Your task to perform on an android device: turn on bluetooth scan Image 0: 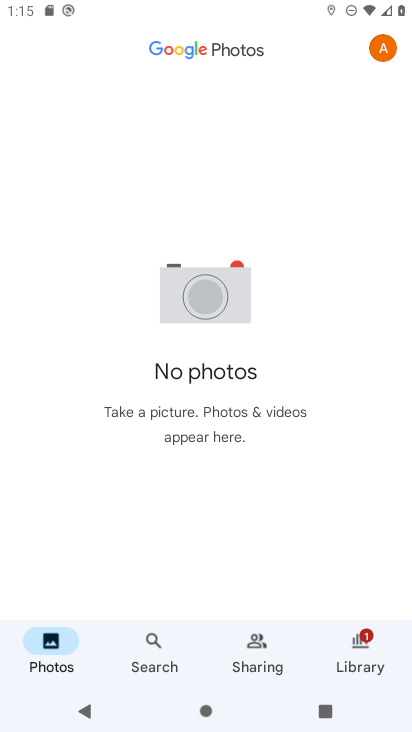
Step 0: press home button
Your task to perform on an android device: turn on bluetooth scan Image 1: 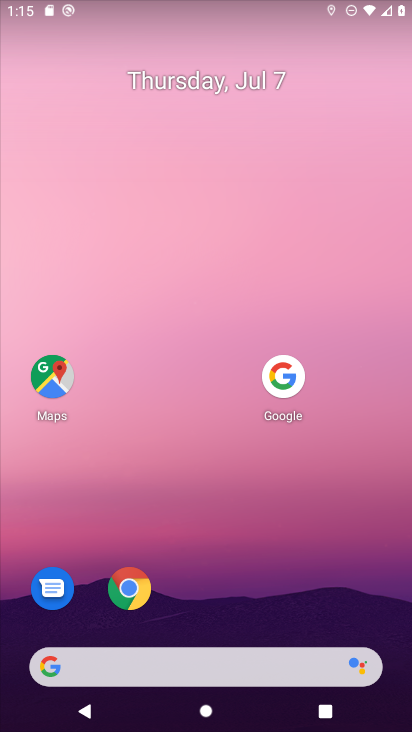
Step 1: drag from (192, 668) to (386, 88)
Your task to perform on an android device: turn on bluetooth scan Image 2: 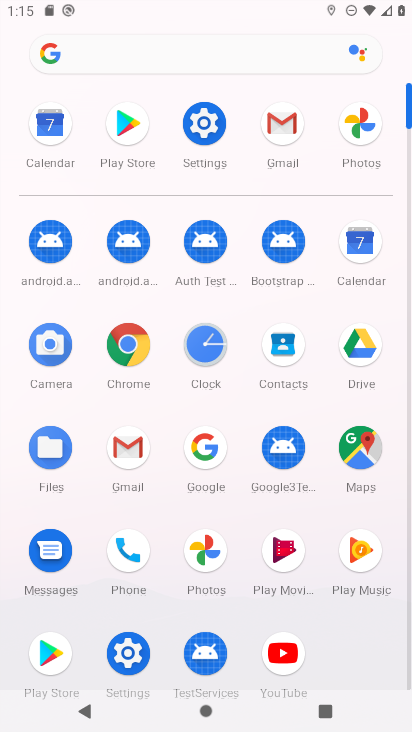
Step 2: click (207, 125)
Your task to perform on an android device: turn on bluetooth scan Image 3: 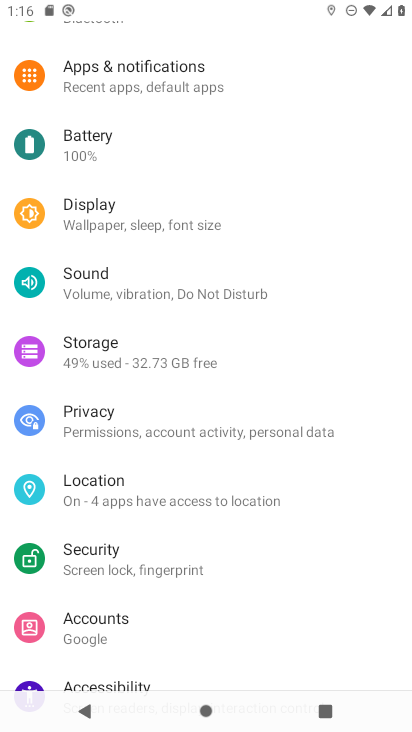
Step 3: click (92, 473)
Your task to perform on an android device: turn on bluetooth scan Image 4: 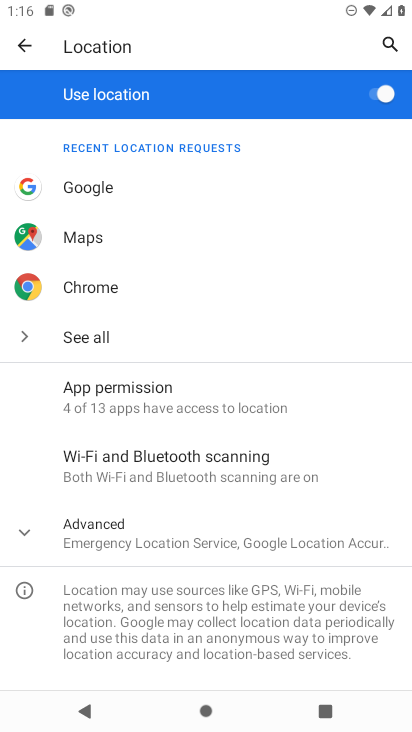
Step 4: click (184, 457)
Your task to perform on an android device: turn on bluetooth scan Image 5: 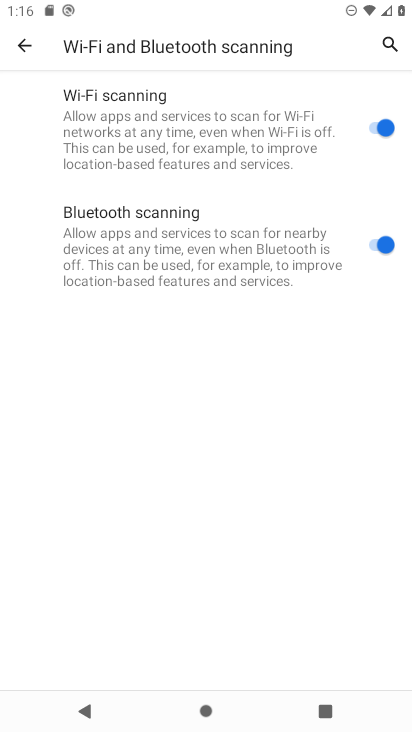
Step 5: task complete